Your task to perform on an android device: Add logitech g pro to the cart on target, then select checkout. Image 0: 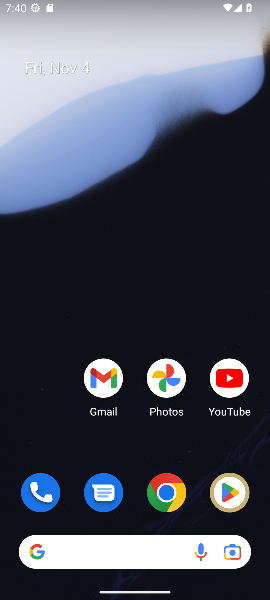
Step 0: drag from (131, 406) to (147, 108)
Your task to perform on an android device: Add logitech g pro to the cart on target, then select checkout. Image 1: 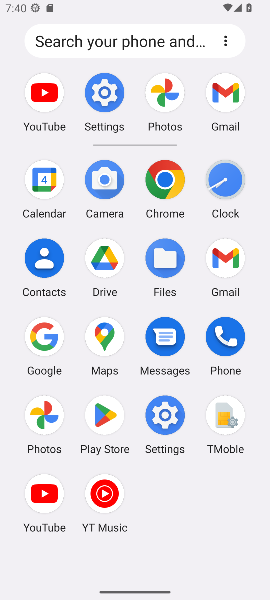
Step 1: click (166, 182)
Your task to perform on an android device: Add logitech g pro to the cart on target, then select checkout. Image 2: 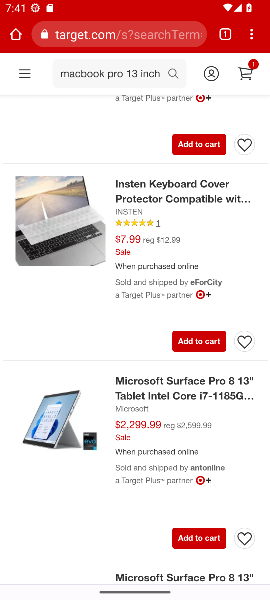
Step 2: click (159, 33)
Your task to perform on an android device: Add logitech g pro to the cart on target, then select checkout. Image 3: 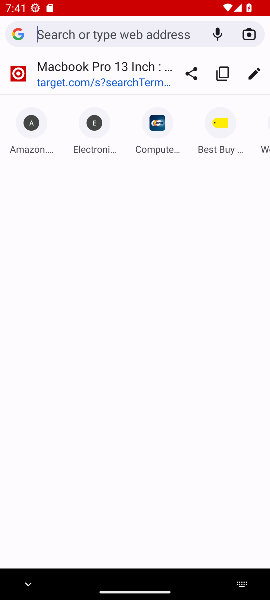
Step 3: type "target.com"
Your task to perform on an android device: Add logitech g pro to the cart on target, then select checkout. Image 4: 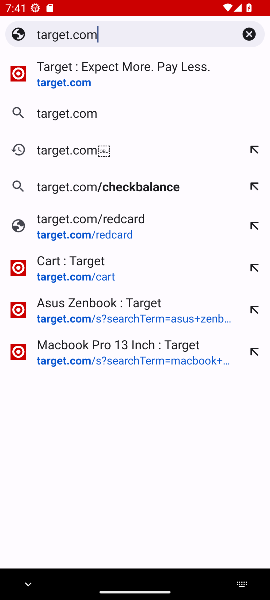
Step 4: press enter
Your task to perform on an android device: Add logitech g pro to the cart on target, then select checkout. Image 5: 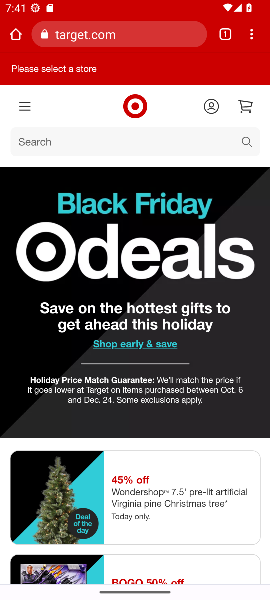
Step 5: click (193, 143)
Your task to perform on an android device: Add logitech g pro to the cart on target, then select checkout. Image 6: 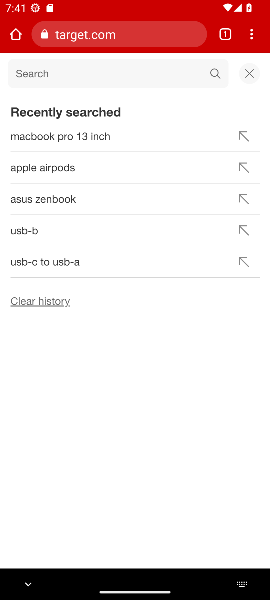
Step 6: type "logitech g pro"
Your task to perform on an android device: Add logitech g pro to the cart on target, then select checkout. Image 7: 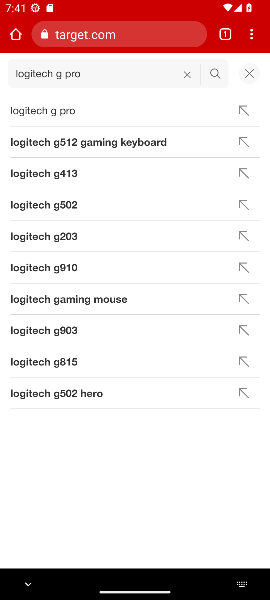
Step 7: press enter
Your task to perform on an android device: Add logitech g pro to the cart on target, then select checkout. Image 8: 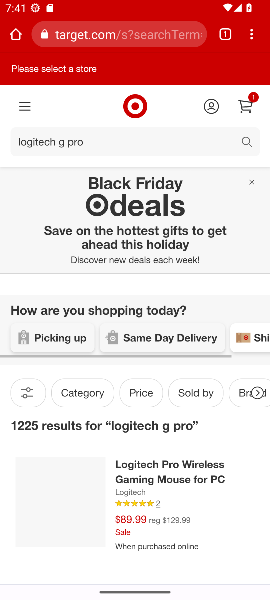
Step 8: task complete